Your task to perform on an android device: Search for sushi restaurants on Maps Image 0: 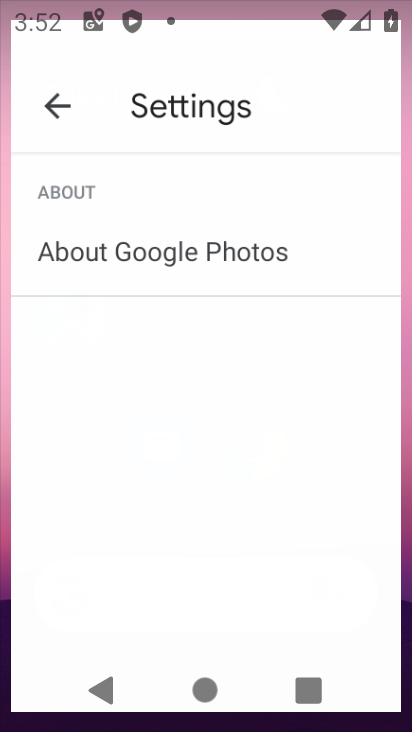
Step 0: press home button
Your task to perform on an android device: Search for sushi restaurants on Maps Image 1: 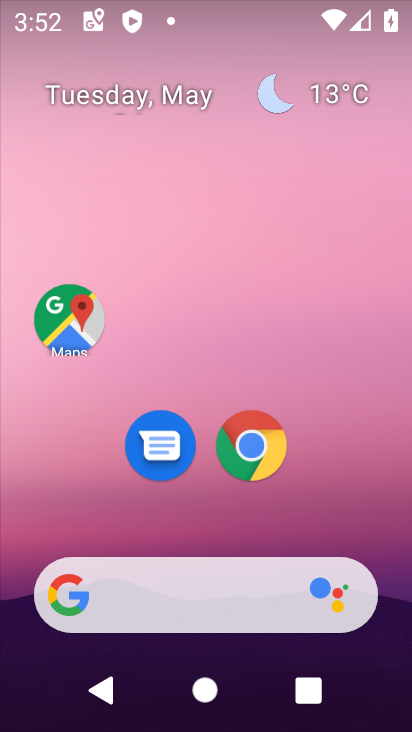
Step 1: drag from (203, 529) to (183, 2)
Your task to perform on an android device: Search for sushi restaurants on Maps Image 2: 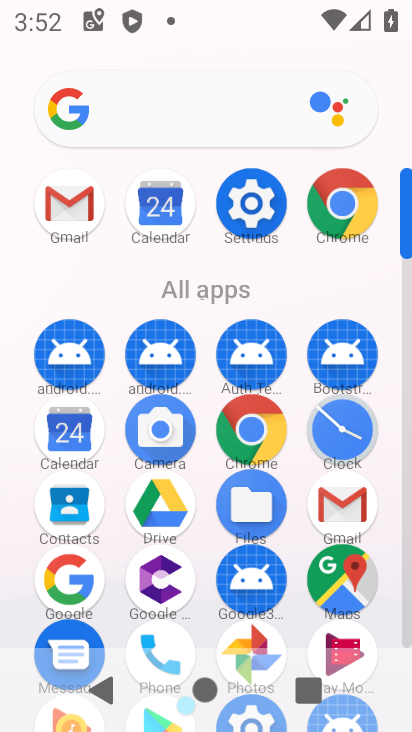
Step 2: click (343, 577)
Your task to perform on an android device: Search for sushi restaurants on Maps Image 3: 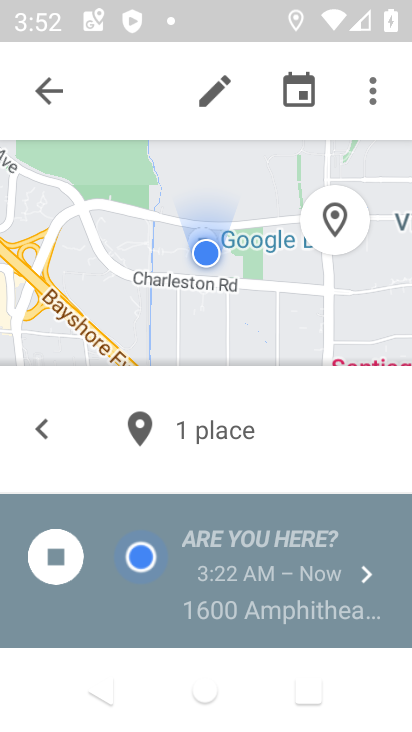
Step 3: click (45, 87)
Your task to perform on an android device: Search for sushi restaurants on Maps Image 4: 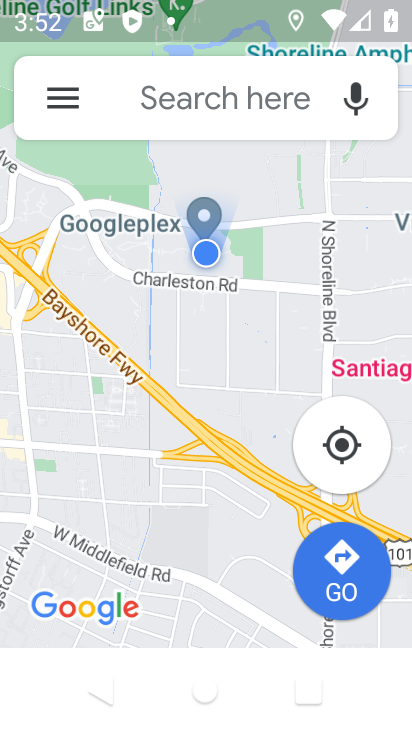
Step 4: click (149, 93)
Your task to perform on an android device: Search for sushi restaurants on Maps Image 5: 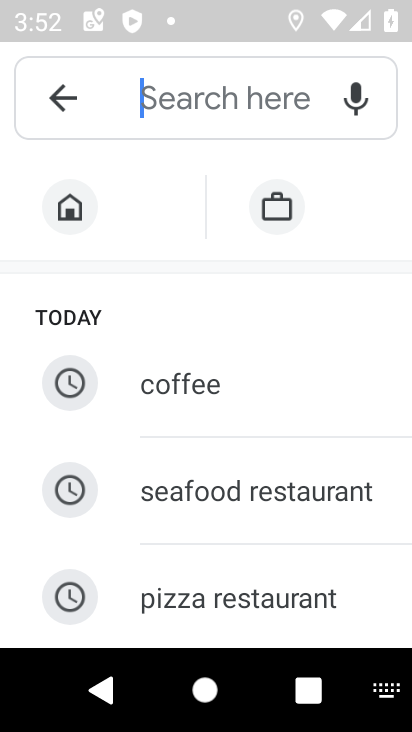
Step 5: drag from (248, 575) to (243, 261)
Your task to perform on an android device: Search for sushi restaurants on Maps Image 6: 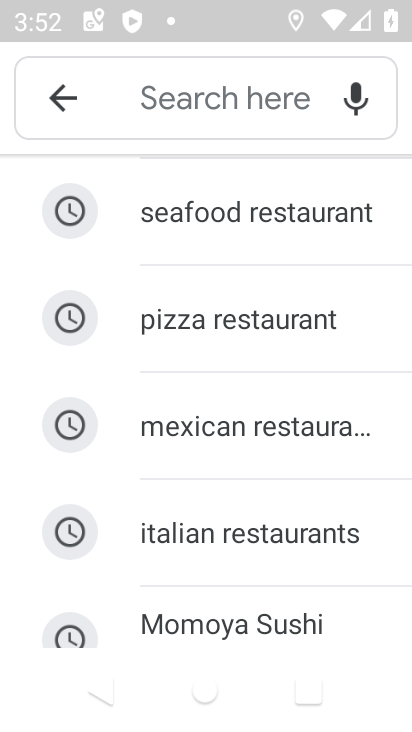
Step 6: drag from (237, 589) to (231, 242)
Your task to perform on an android device: Search for sushi restaurants on Maps Image 7: 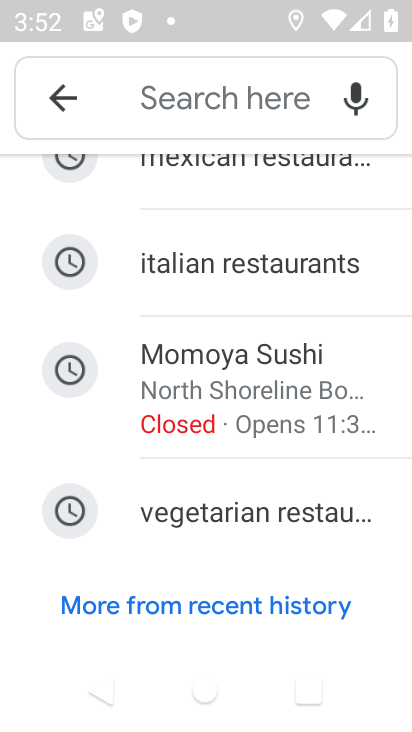
Step 7: click (198, 610)
Your task to perform on an android device: Search for sushi restaurants on Maps Image 8: 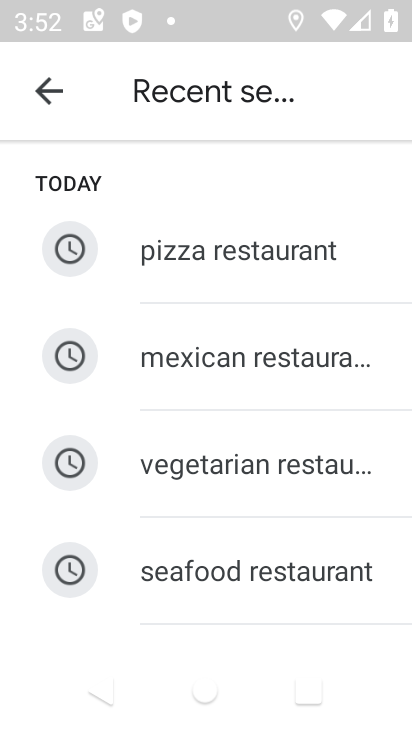
Step 8: drag from (218, 552) to (223, 217)
Your task to perform on an android device: Search for sushi restaurants on Maps Image 9: 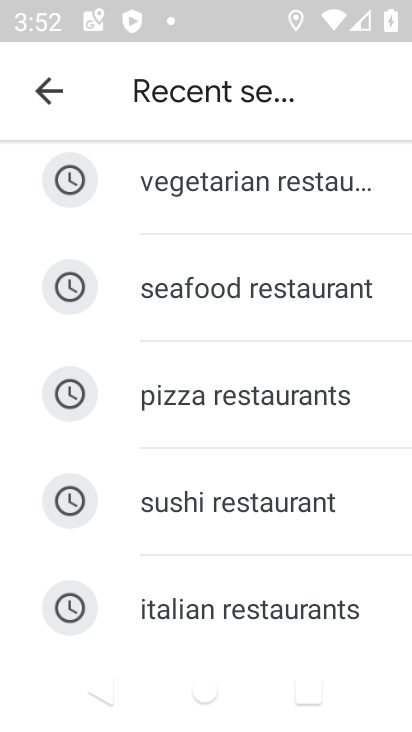
Step 9: click (207, 519)
Your task to perform on an android device: Search for sushi restaurants on Maps Image 10: 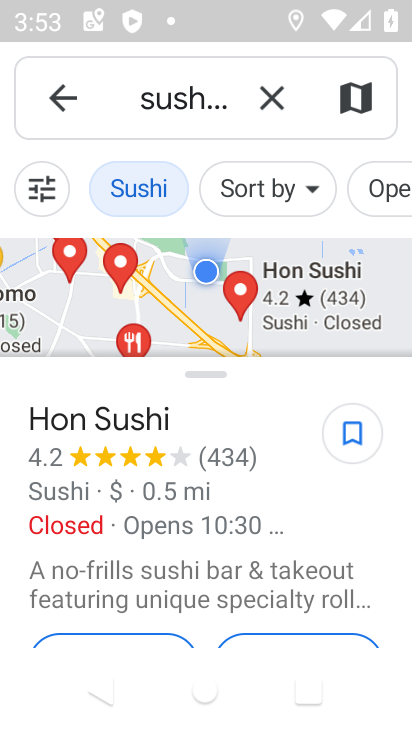
Step 10: task complete